Your task to perform on an android device: Go to Reddit.com Image 0: 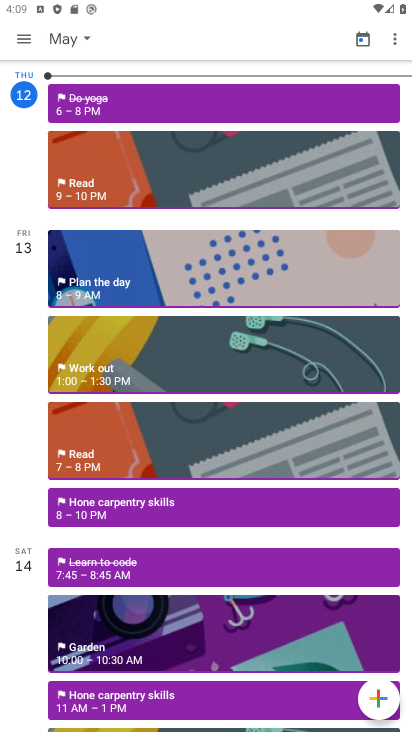
Step 0: press home button
Your task to perform on an android device: Go to Reddit.com Image 1: 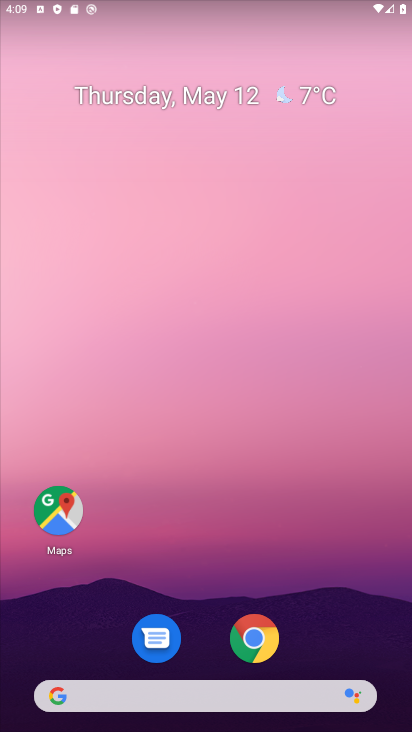
Step 1: click (246, 627)
Your task to perform on an android device: Go to Reddit.com Image 2: 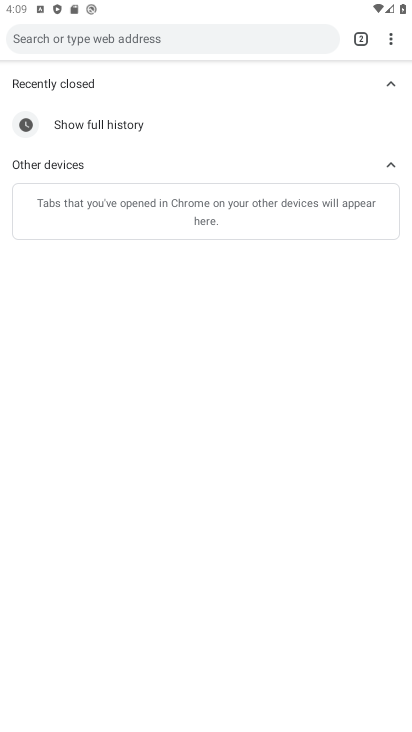
Step 2: click (140, 35)
Your task to perform on an android device: Go to Reddit.com Image 3: 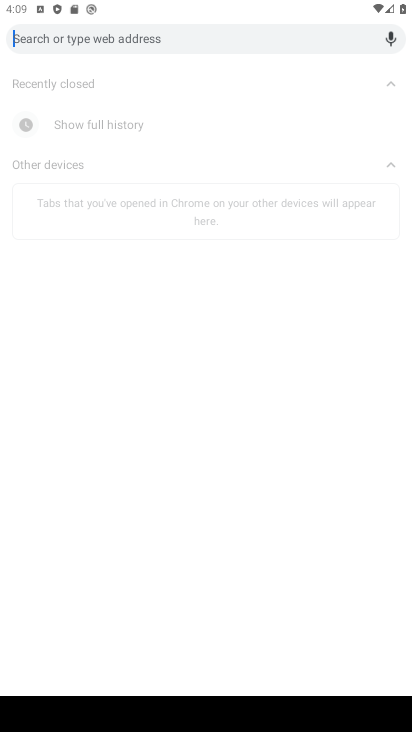
Step 3: type "Reddit.com"
Your task to perform on an android device: Go to Reddit.com Image 4: 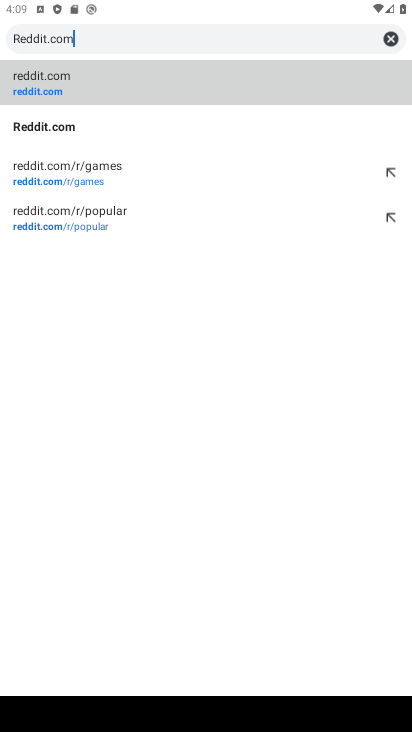
Step 4: click (127, 77)
Your task to perform on an android device: Go to Reddit.com Image 5: 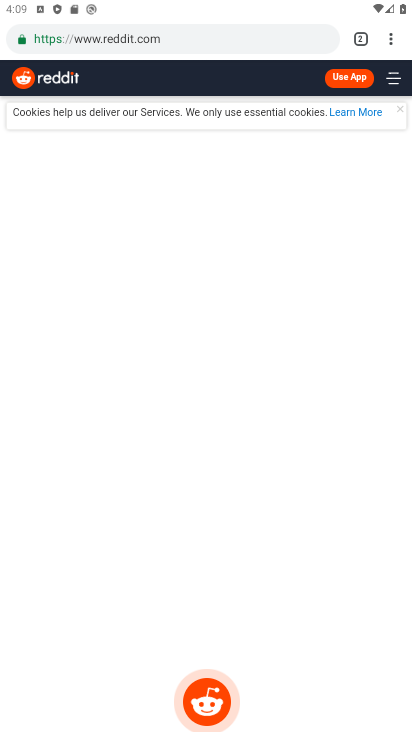
Step 5: task complete